Your task to perform on an android device: refresh tabs in the chrome app Image 0: 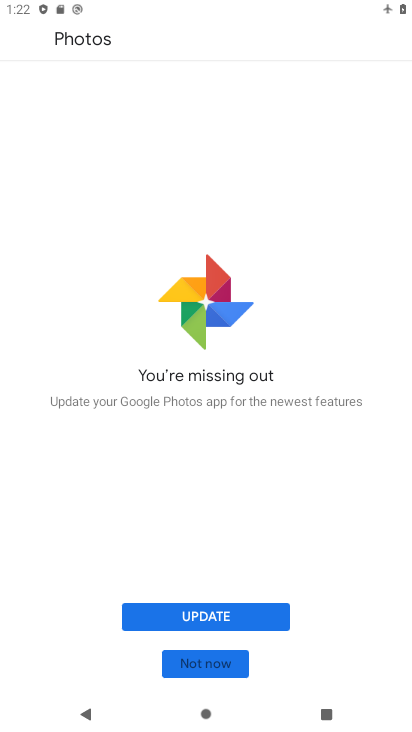
Step 0: press home button
Your task to perform on an android device: refresh tabs in the chrome app Image 1: 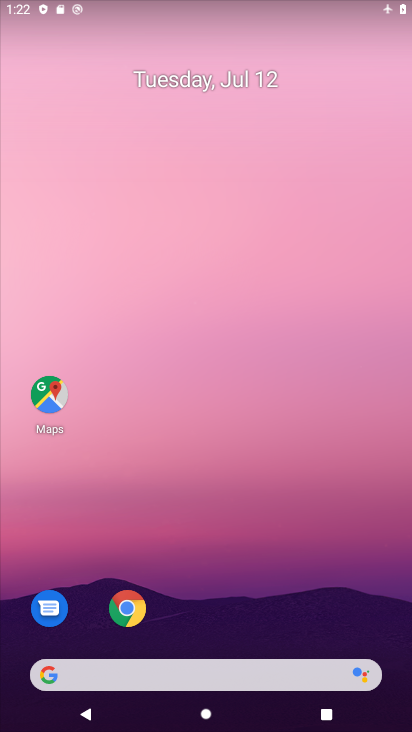
Step 1: click (135, 610)
Your task to perform on an android device: refresh tabs in the chrome app Image 2: 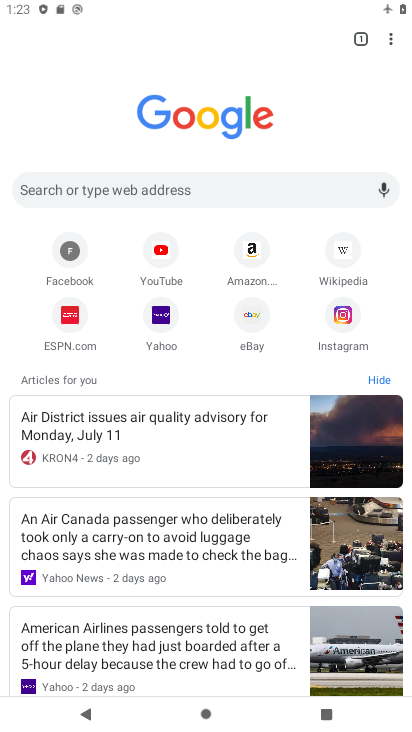
Step 2: click (394, 34)
Your task to perform on an android device: refresh tabs in the chrome app Image 3: 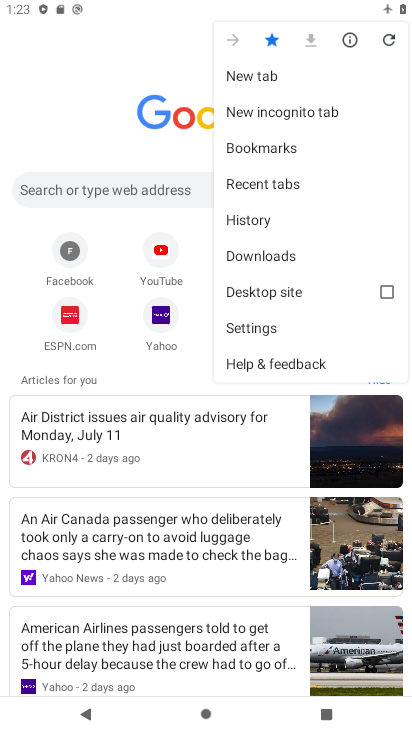
Step 3: click (394, 34)
Your task to perform on an android device: refresh tabs in the chrome app Image 4: 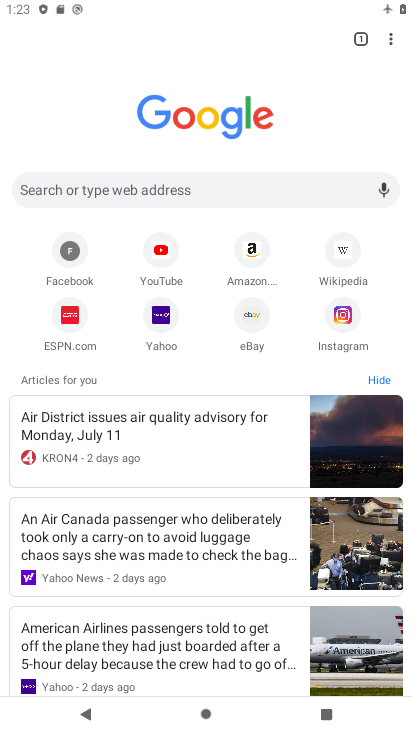
Step 4: task complete